Your task to perform on an android device: turn smart compose on in the gmail app Image 0: 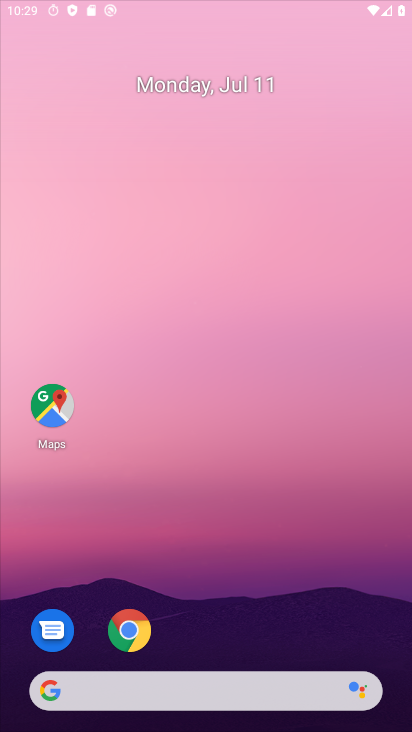
Step 0: drag from (202, 636) to (284, 476)
Your task to perform on an android device: turn smart compose on in the gmail app Image 1: 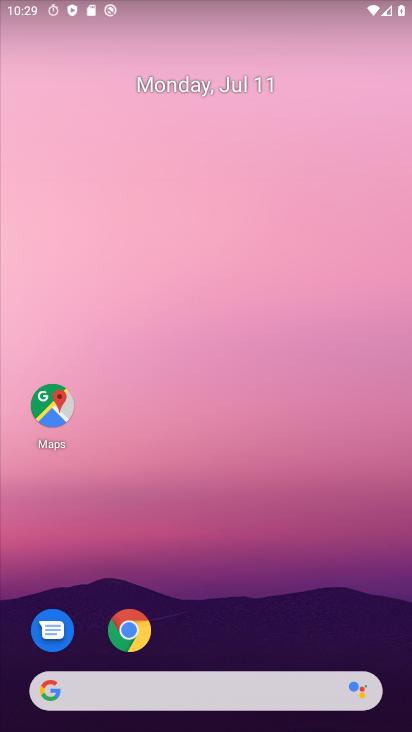
Step 1: drag from (211, 716) to (263, 19)
Your task to perform on an android device: turn smart compose on in the gmail app Image 2: 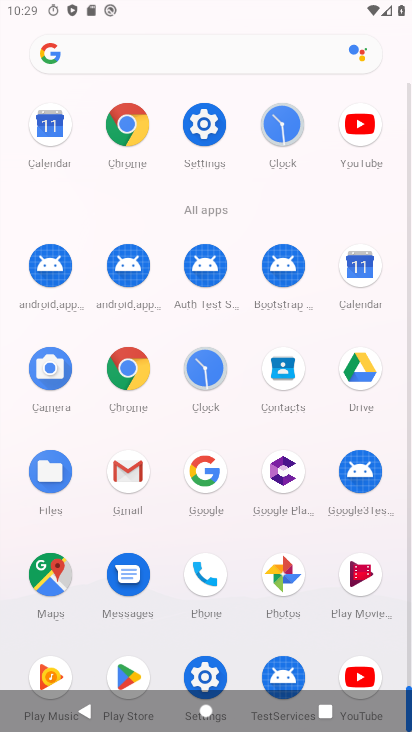
Step 2: click (118, 467)
Your task to perform on an android device: turn smart compose on in the gmail app Image 3: 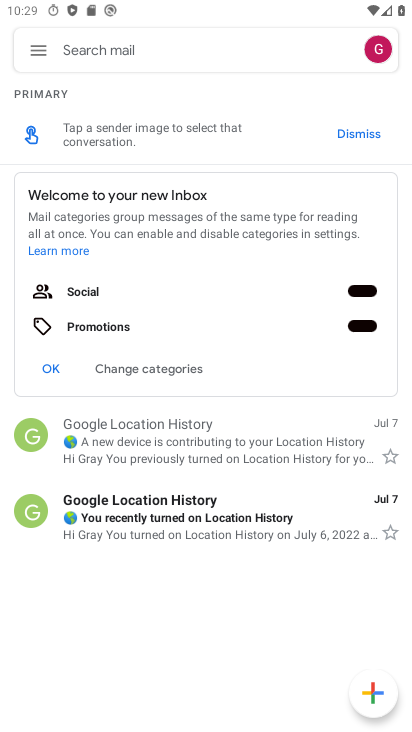
Step 3: click (28, 46)
Your task to perform on an android device: turn smart compose on in the gmail app Image 4: 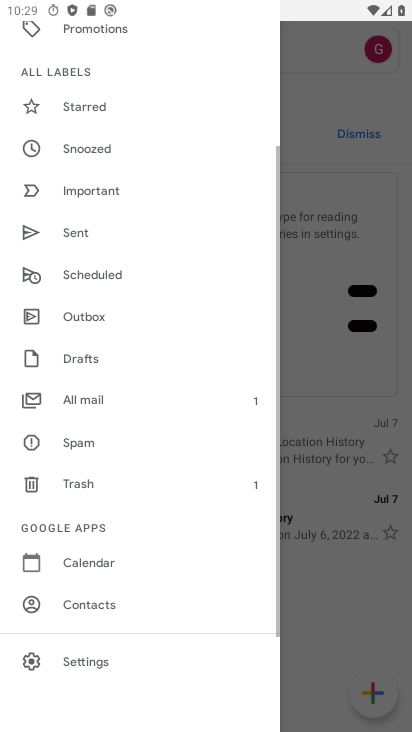
Step 4: click (110, 659)
Your task to perform on an android device: turn smart compose on in the gmail app Image 5: 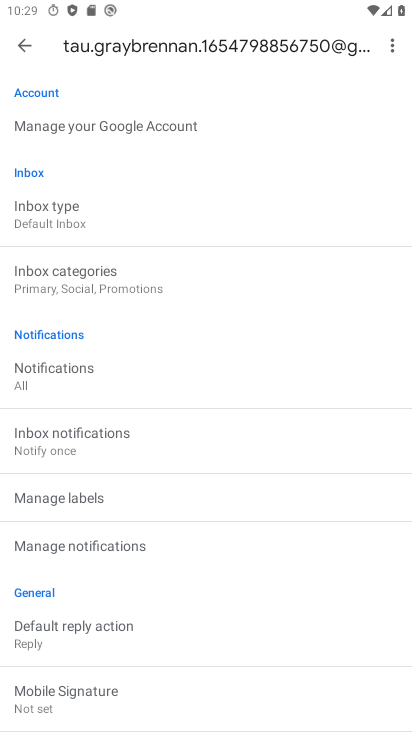
Step 5: task complete